Your task to perform on an android device: Open CNN.com Image 0: 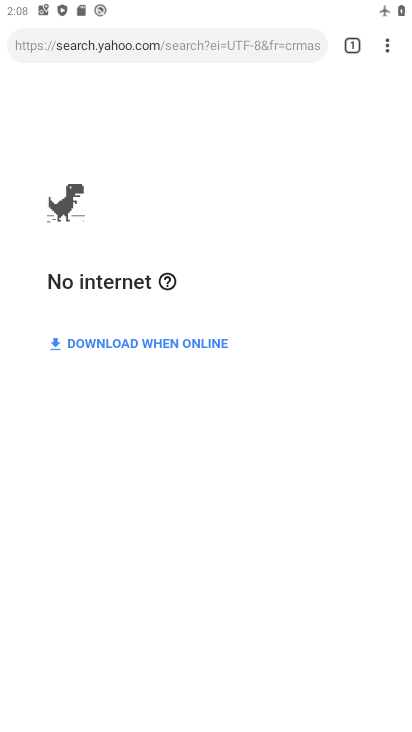
Step 0: click (204, 24)
Your task to perform on an android device: Open CNN.com Image 1: 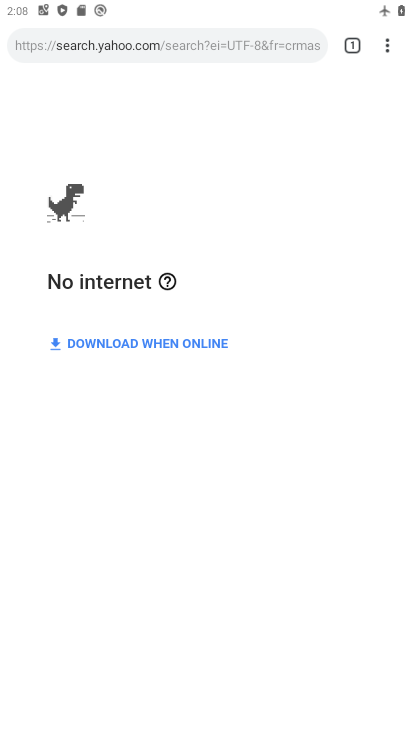
Step 1: click (207, 46)
Your task to perform on an android device: Open CNN.com Image 2: 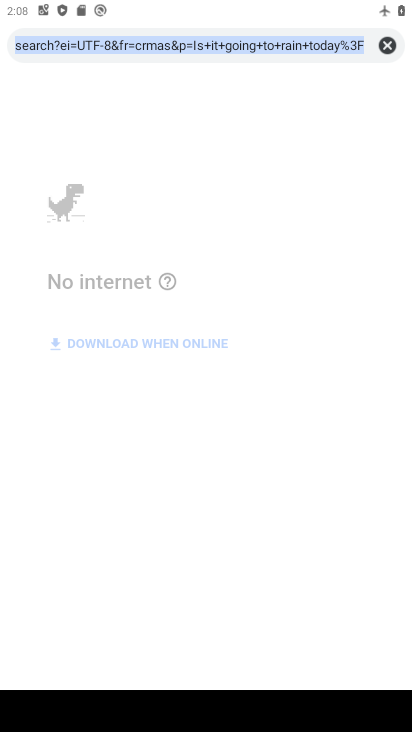
Step 2: click (379, 45)
Your task to perform on an android device: Open CNN.com Image 3: 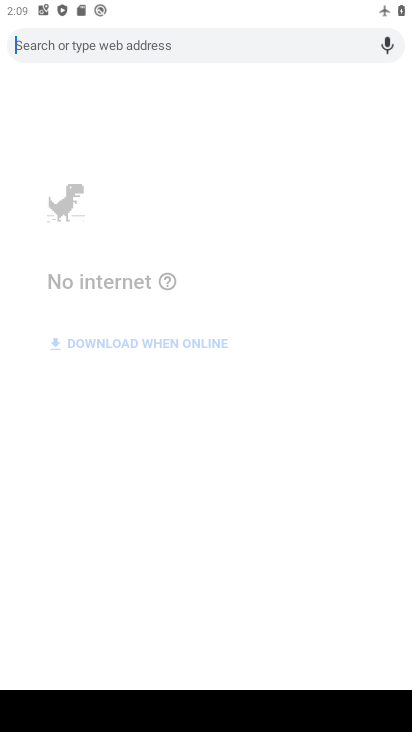
Step 3: type "CNN.com"
Your task to perform on an android device: Open CNN.com Image 4: 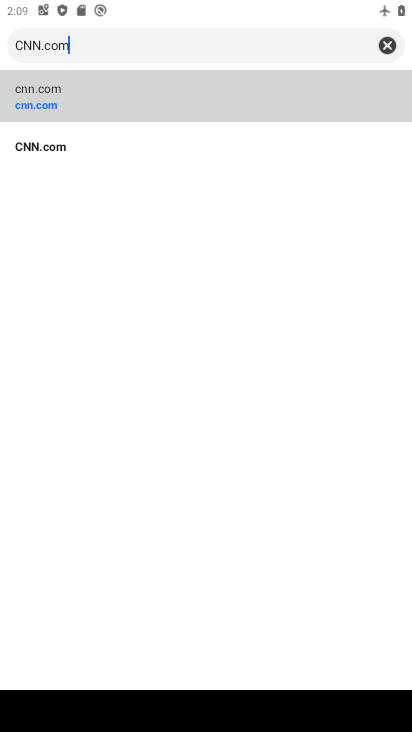
Step 4: type ""
Your task to perform on an android device: Open CNN.com Image 5: 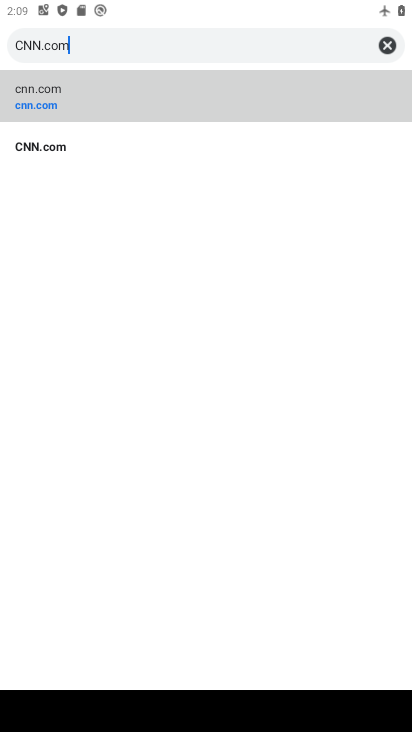
Step 5: click (89, 100)
Your task to perform on an android device: Open CNN.com Image 6: 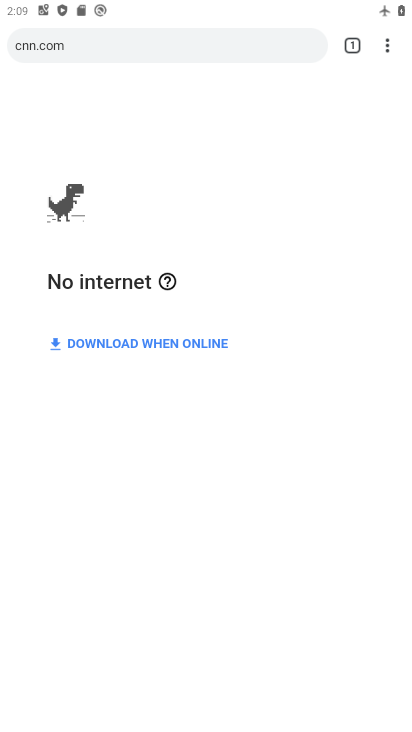
Step 6: task complete